Your task to perform on an android device: Go to Yahoo.com Image 0: 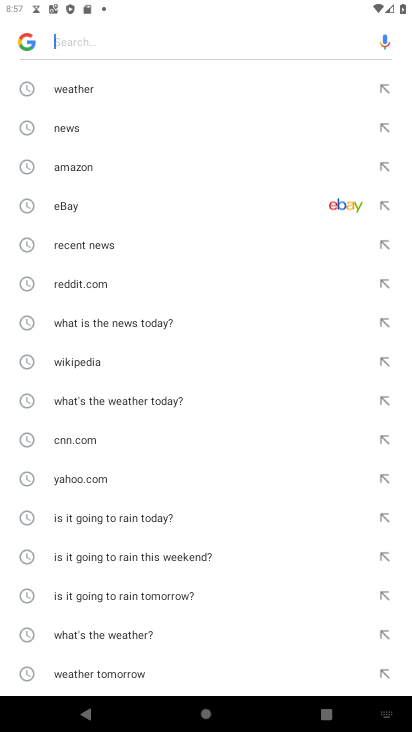
Step 0: press back button
Your task to perform on an android device: Go to Yahoo.com Image 1: 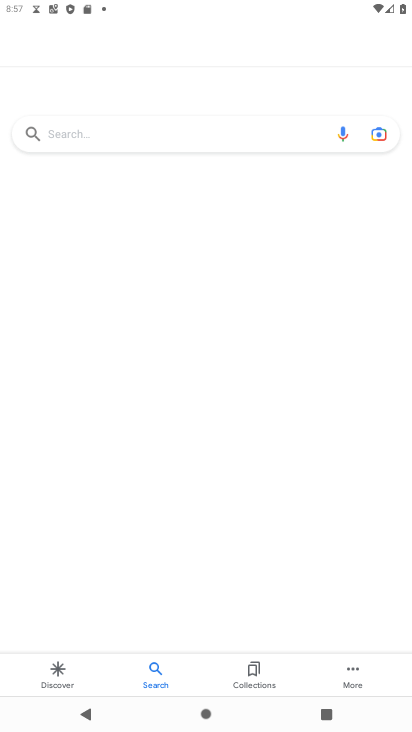
Step 1: press back button
Your task to perform on an android device: Go to Yahoo.com Image 2: 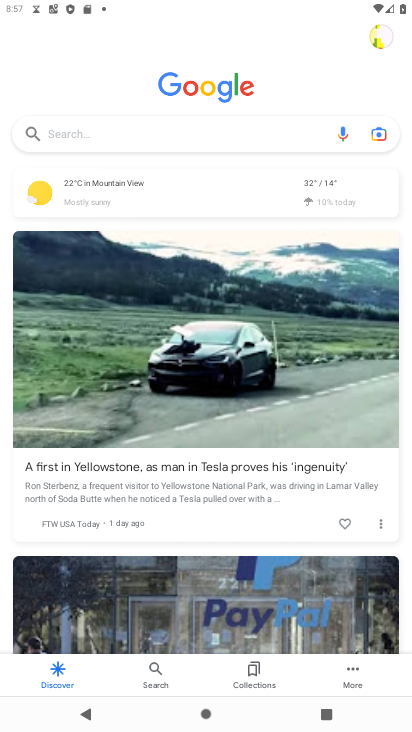
Step 2: click (224, 122)
Your task to perform on an android device: Go to Yahoo.com Image 3: 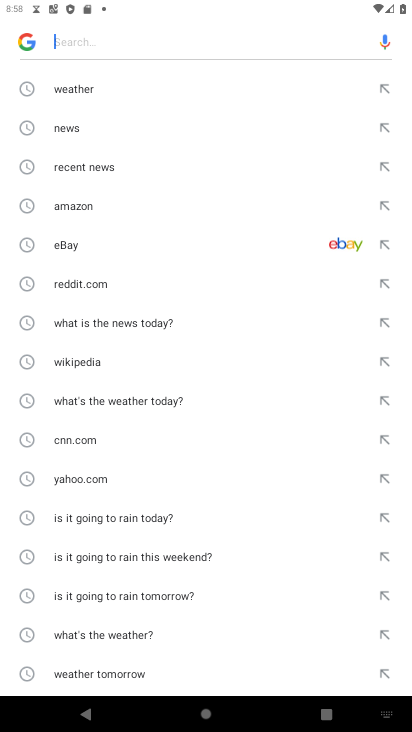
Step 3: type "Yahoo.com"
Your task to perform on an android device: Go to Yahoo.com Image 4: 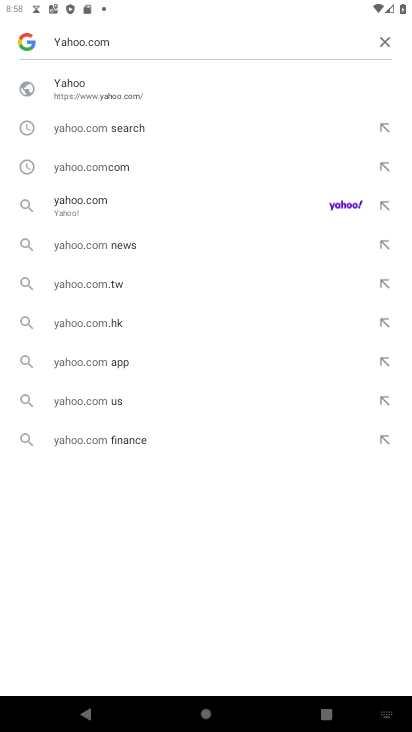
Step 4: click (92, 90)
Your task to perform on an android device: Go to Yahoo.com Image 5: 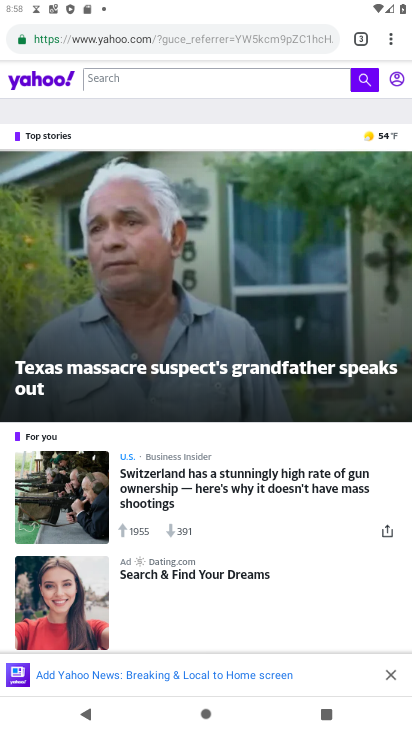
Step 5: task complete